Your task to perform on an android device: turn on priority inbox in the gmail app Image 0: 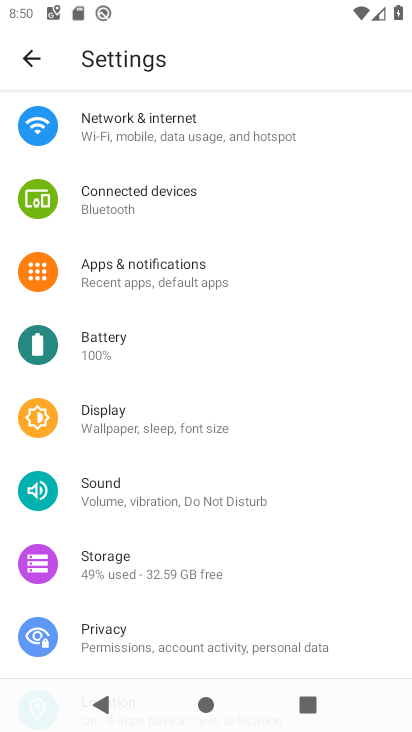
Step 0: press home button
Your task to perform on an android device: turn on priority inbox in the gmail app Image 1: 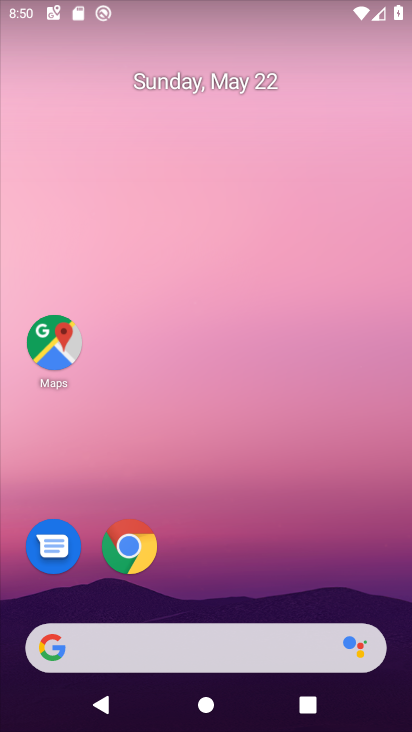
Step 1: drag from (356, 607) to (345, 170)
Your task to perform on an android device: turn on priority inbox in the gmail app Image 2: 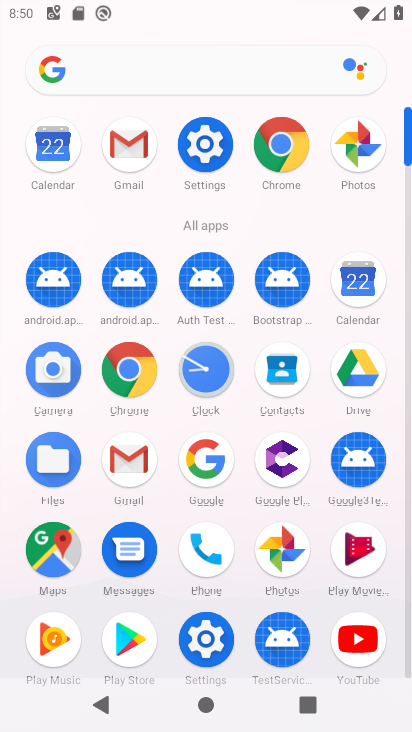
Step 2: click (136, 474)
Your task to perform on an android device: turn on priority inbox in the gmail app Image 3: 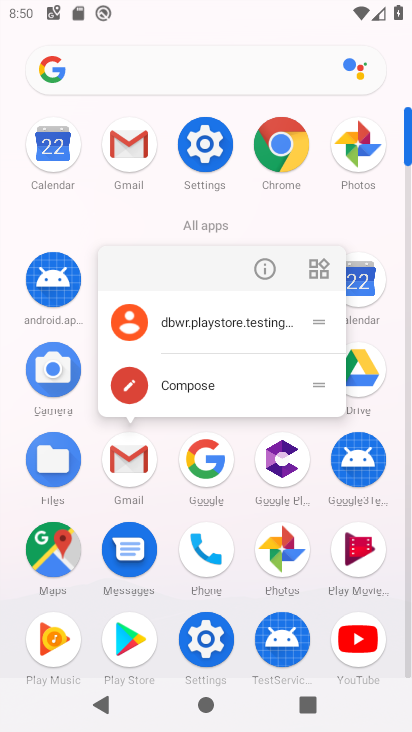
Step 3: click (136, 474)
Your task to perform on an android device: turn on priority inbox in the gmail app Image 4: 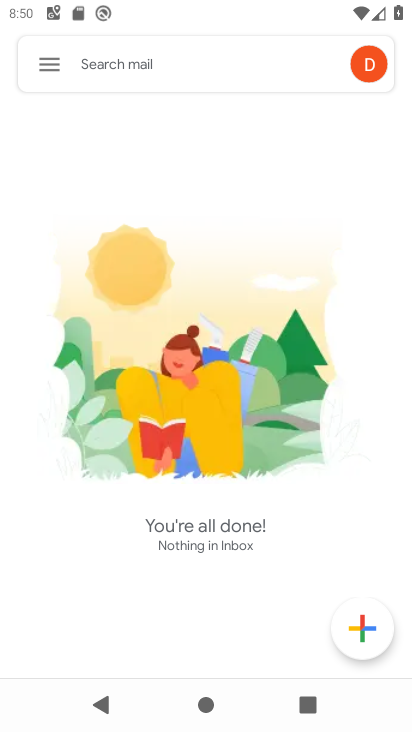
Step 4: click (53, 78)
Your task to perform on an android device: turn on priority inbox in the gmail app Image 5: 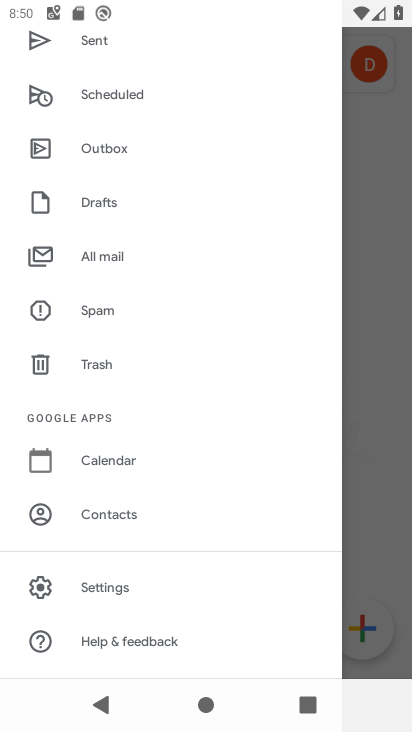
Step 5: drag from (280, 562) to (274, 384)
Your task to perform on an android device: turn on priority inbox in the gmail app Image 6: 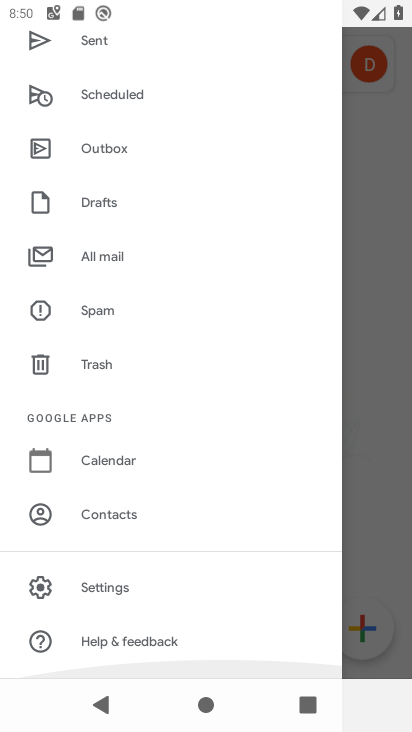
Step 6: drag from (272, 283) to (271, 412)
Your task to perform on an android device: turn on priority inbox in the gmail app Image 7: 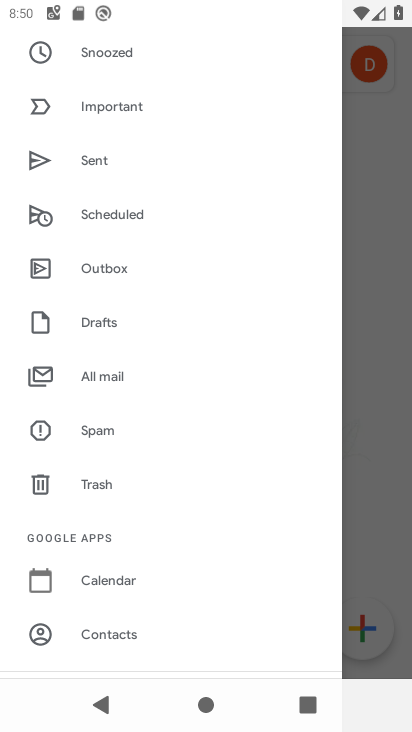
Step 7: drag from (287, 273) to (286, 386)
Your task to perform on an android device: turn on priority inbox in the gmail app Image 8: 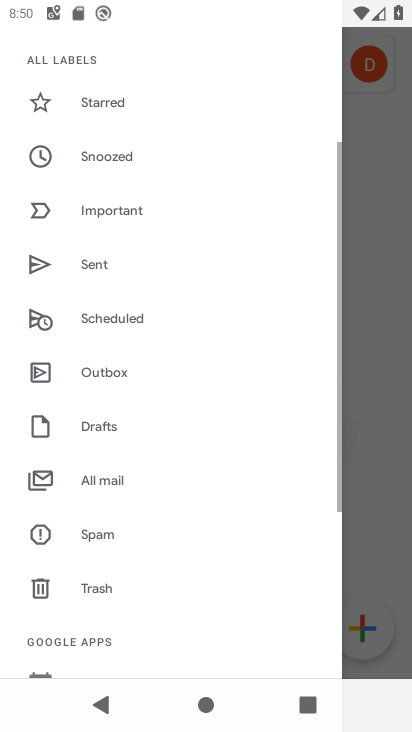
Step 8: drag from (279, 234) to (286, 367)
Your task to perform on an android device: turn on priority inbox in the gmail app Image 9: 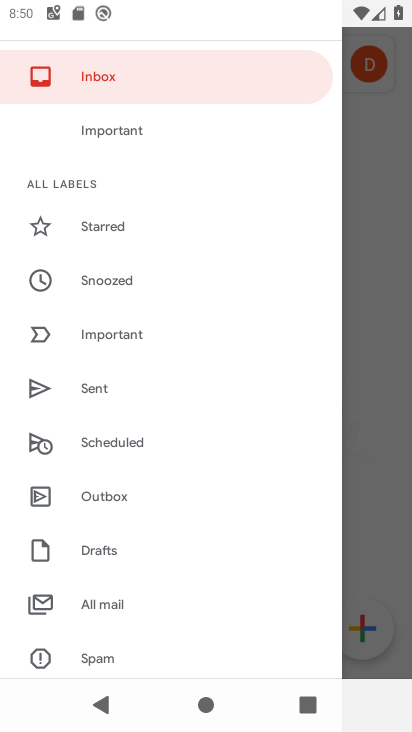
Step 9: drag from (286, 255) to (285, 409)
Your task to perform on an android device: turn on priority inbox in the gmail app Image 10: 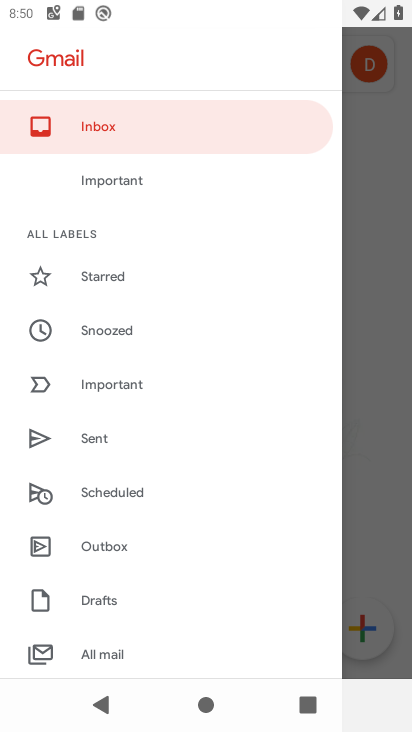
Step 10: drag from (272, 549) to (270, 429)
Your task to perform on an android device: turn on priority inbox in the gmail app Image 11: 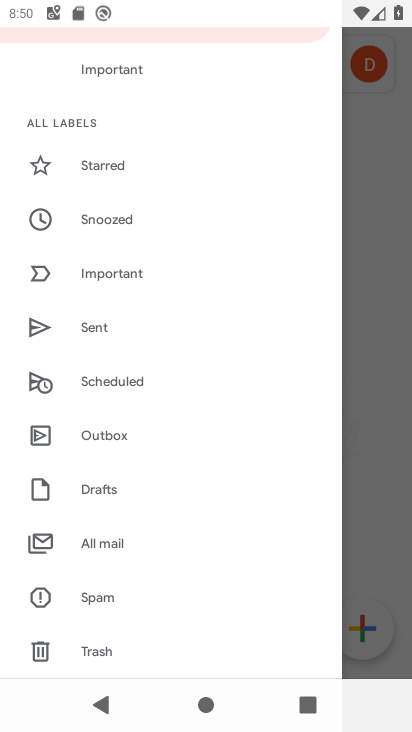
Step 11: drag from (267, 544) to (267, 439)
Your task to perform on an android device: turn on priority inbox in the gmail app Image 12: 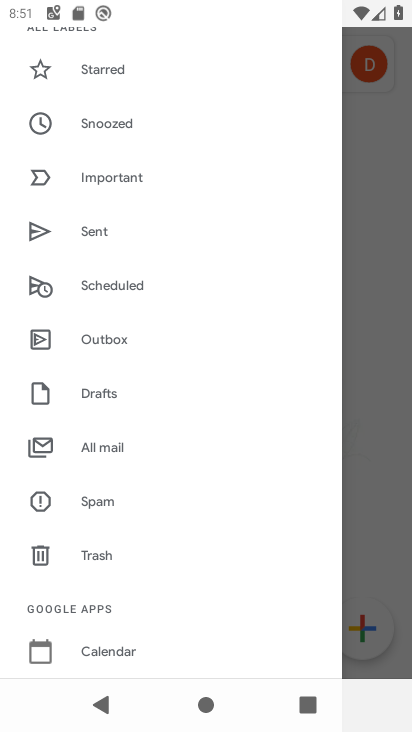
Step 12: drag from (263, 531) to (281, 410)
Your task to perform on an android device: turn on priority inbox in the gmail app Image 13: 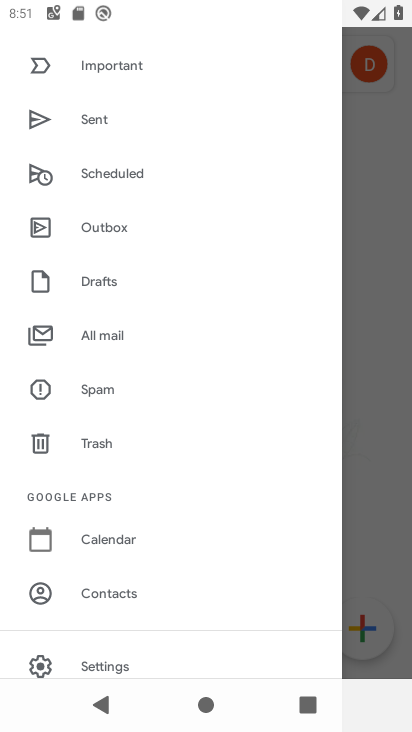
Step 13: drag from (273, 596) to (277, 429)
Your task to perform on an android device: turn on priority inbox in the gmail app Image 14: 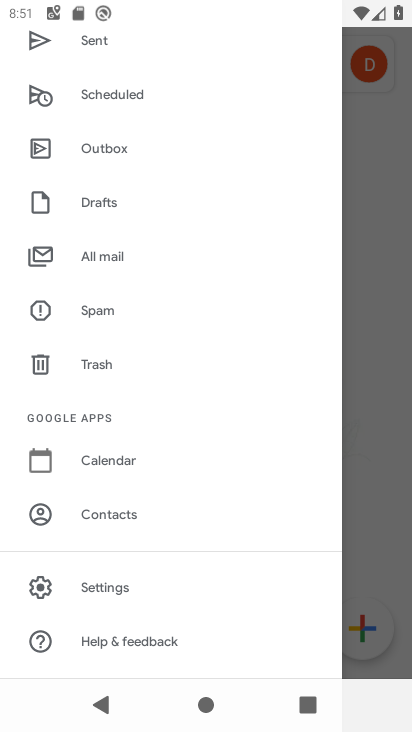
Step 14: click (152, 595)
Your task to perform on an android device: turn on priority inbox in the gmail app Image 15: 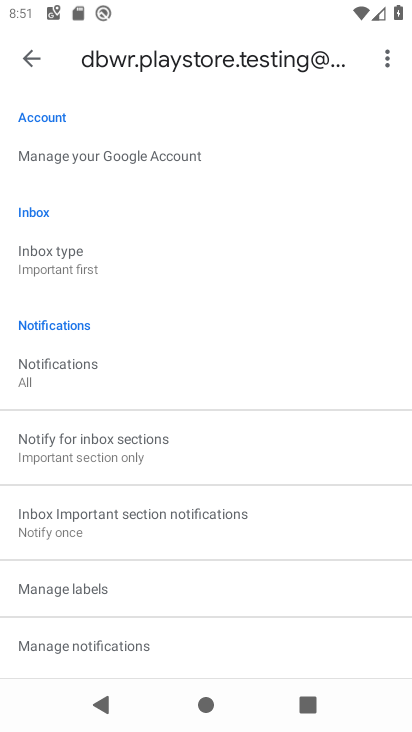
Step 15: drag from (245, 576) to (249, 483)
Your task to perform on an android device: turn on priority inbox in the gmail app Image 16: 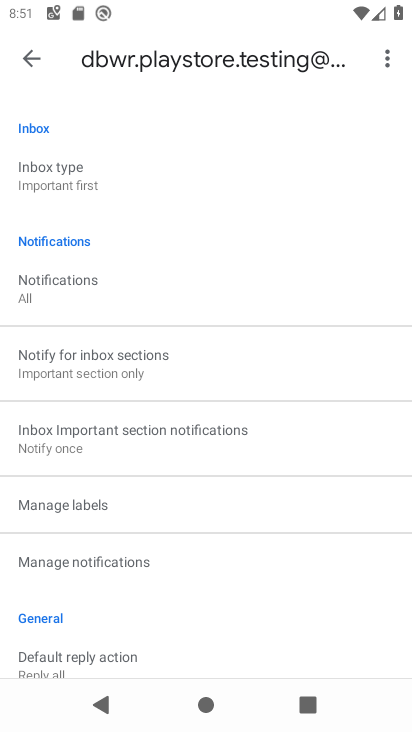
Step 16: drag from (251, 567) to (254, 488)
Your task to perform on an android device: turn on priority inbox in the gmail app Image 17: 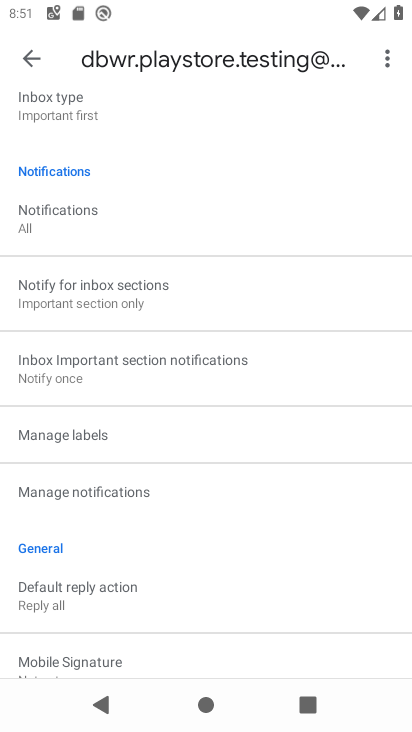
Step 17: drag from (261, 588) to (277, 493)
Your task to perform on an android device: turn on priority inbox in the gmail app Image 18: 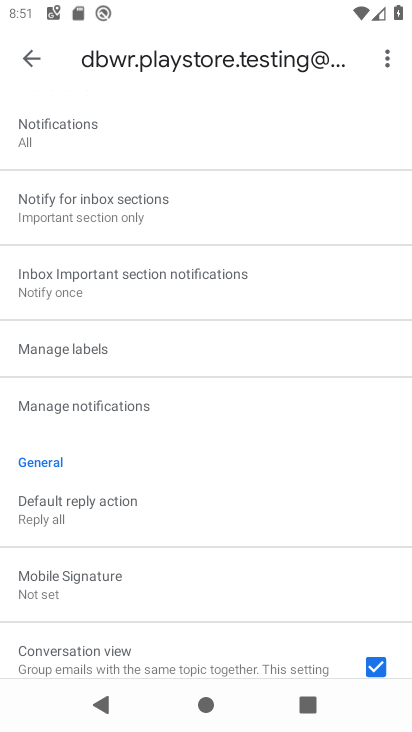
Step 18: drag from (293, 596) to (291, 503)
Your task to perform on an android device: turn on priority inbox in the gmail app Image 19: 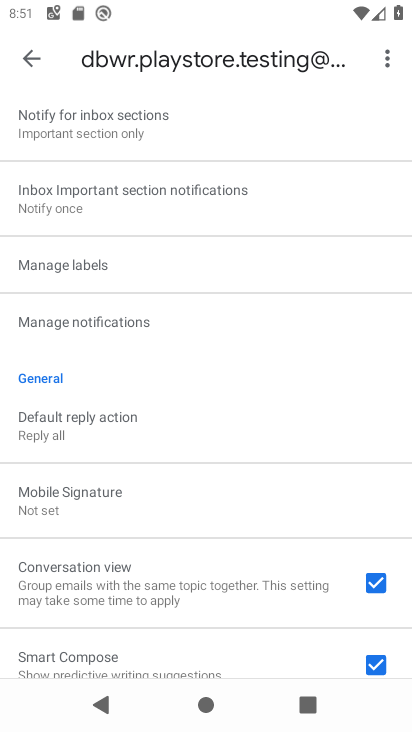
Step 19: drag from (288, 597) to (285, 498)
Your task to perform on an android device: turn on priority inbox in the gmail app Image 20: 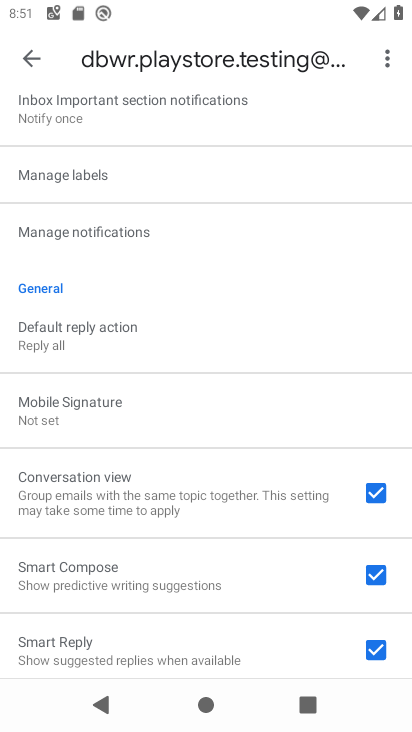
Step 20: drag from (274, 626) to (281, 546)
Your task to perform on an android device: turn on priority inbox in the gmail app Image 21: 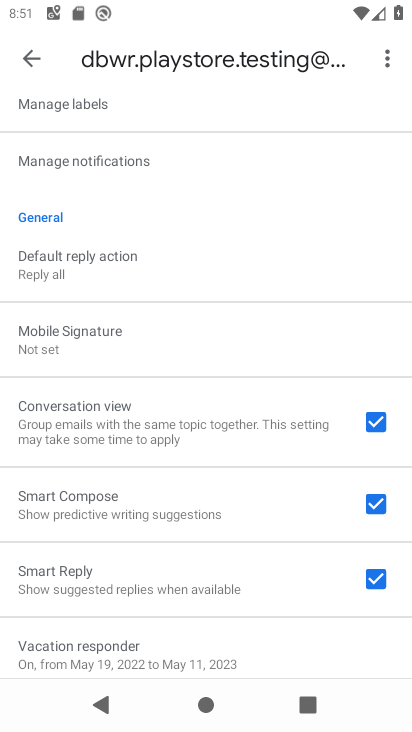
Step 21: drag from (287, 625) to (283, 554)
Your task to perform on an android device: turn on priority inbox in the gmail app Image 22: 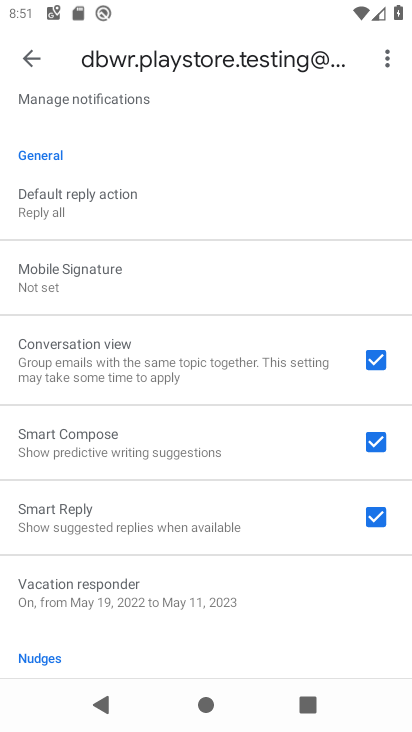
Step 22: drag from (292, 629) to (296, 561)
Your task to perform on an android device: turn on priority inbox in the gmail app Image 23: 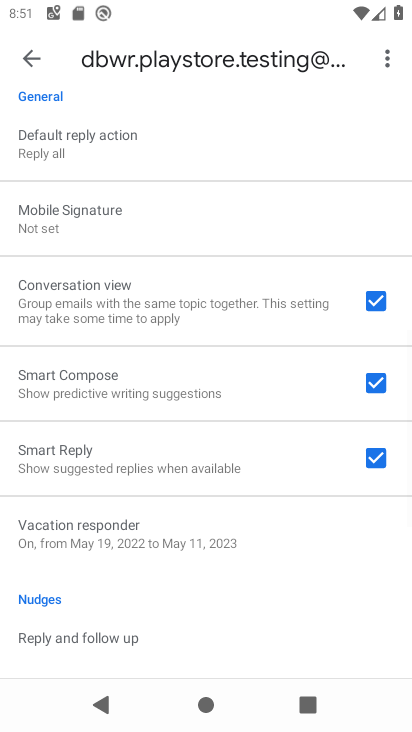
Step 23: drag from (280, 647) to (287, 590)
Your task to perform on an android device: turn on priority inbox in the gmail app Image 24: 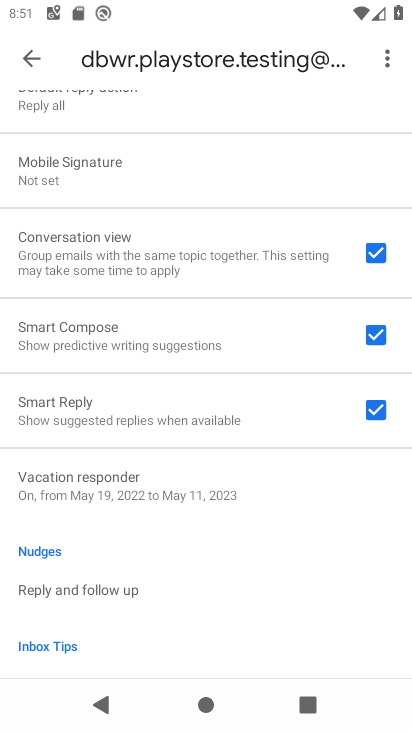
Step 24: drag from (280, 664) to (284, 600)
Your task to perform on an android device: turn on priority inbox in the gmail app Image 25: 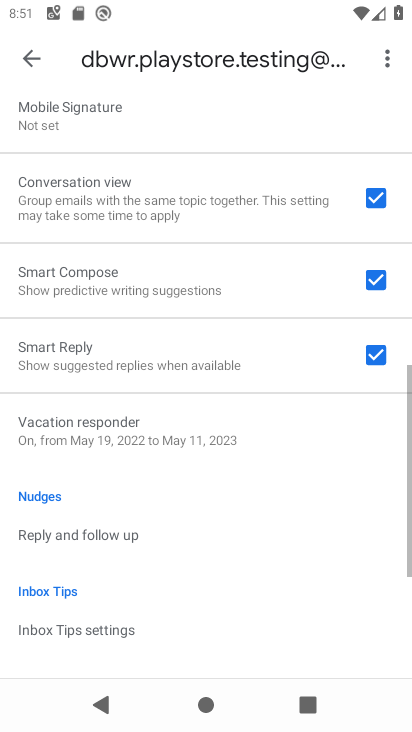
Step 25: drag from (277, 654) to (280, 562)
Your task to perform on an android device: turn on priority inbox in the gmail app Image 26: 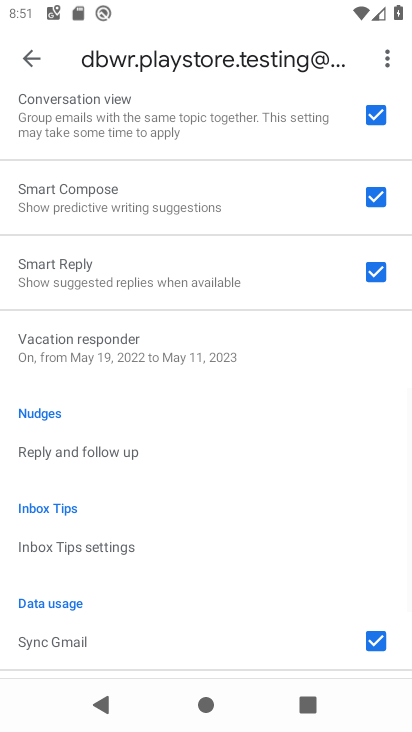
Step 26: drag from (274, 635) to (277, 512)
Your task to perform on an android device: turn on priority inbox in the gmail app Image 27: 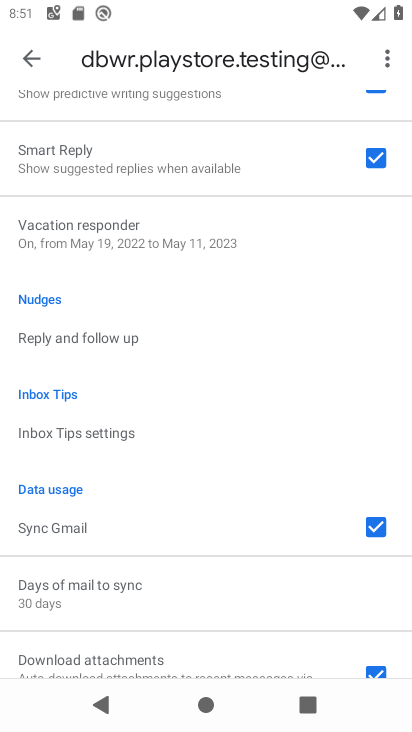
Step 27: drag from (273, 568) to (275, 472)
Your task to perform on an android device: turn on priority inbox in the gmail app Image 28: 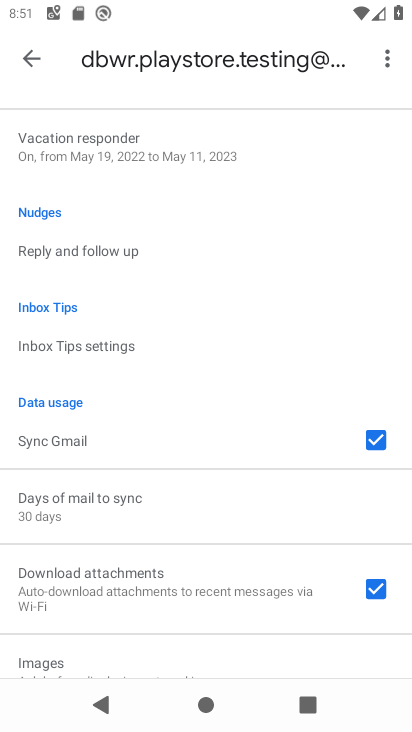
Step 28: drag from (282, 593) to (281, 460)
Your task to perform on an android device: turn on priority inbox in the gmail app Image 29: 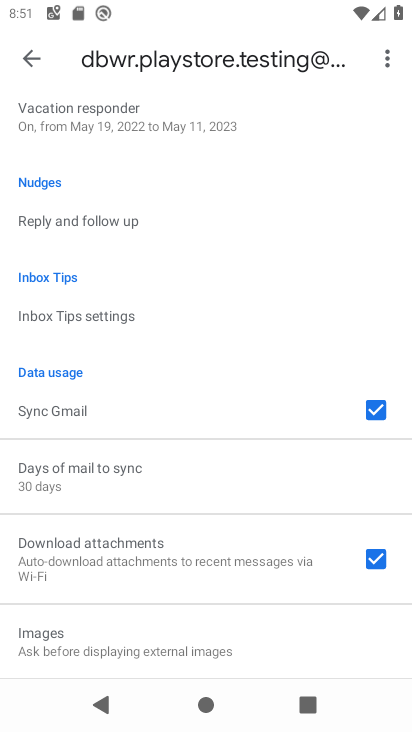
Step 29: drag from (274, 405) to (278, 507)
Your task to perform on an android device: turn on priority inbox in the gmail app Image 30: 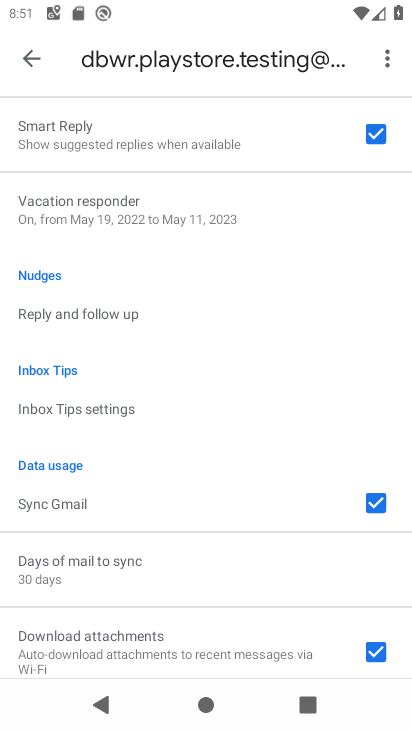
Step 30: drag from (273, 436) to (278, 541)
Your task to perform on an android device: turn on priority inbox in the gmail app Image 31: 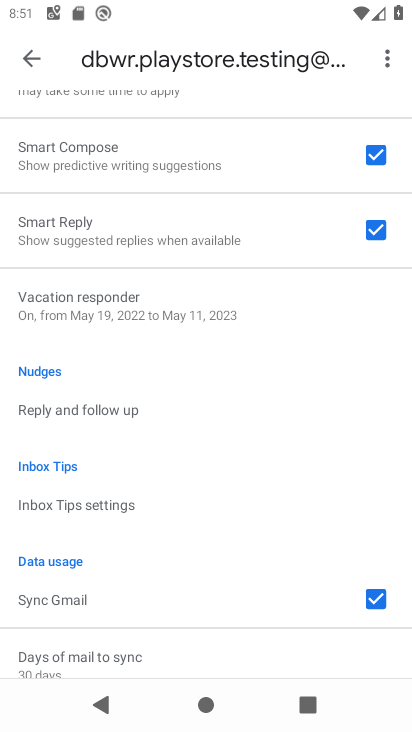
Step 31: drag from (282, 395) to (286, 514)
Your task to perform on an android device: turn on priority inbox in the gmail app Image 32: 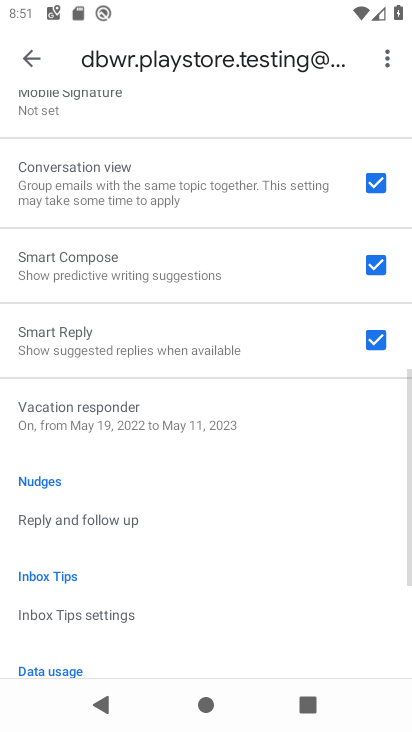
Step 32: drag from (280, 376) to (284, 489)
Your task to perform on an android device: turn on priority inbox in the gmail app Image 33: 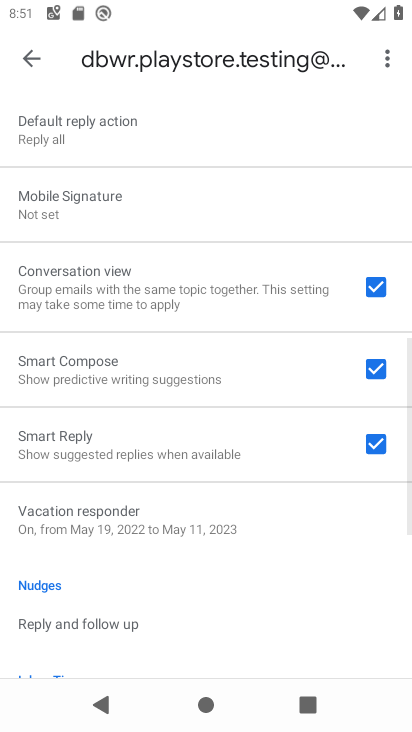
Step 33: drag from (277, 338) to (283, 442)
Your task to perform on an android device: turn on priority inbox in the gmail app Image 34: 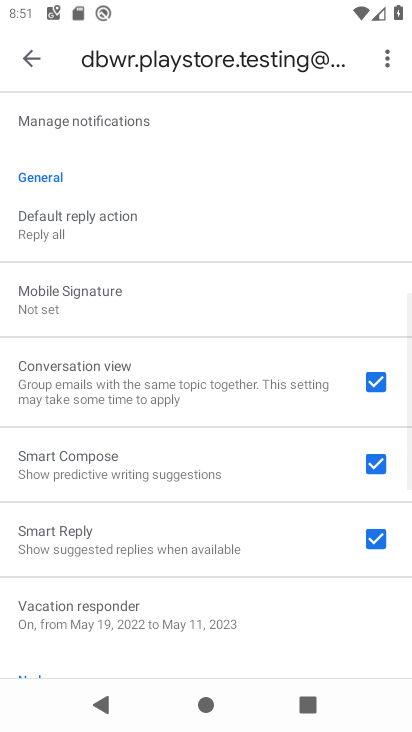
Step 34: drag from (278, 317) to (286, 434)
Your task to perform on an android device: turn on priority inbox in the gmail app Image 35: 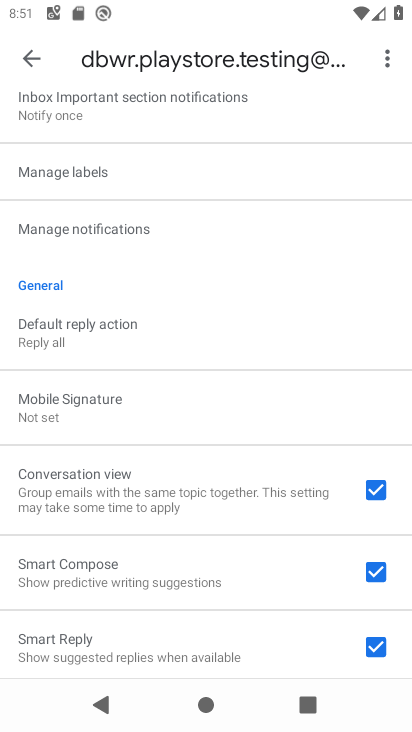
Step 35: drag from (274, 299) to (287, 404)
Your task to perform on an android device: turn on priority inbox in the gmail app Image 36: 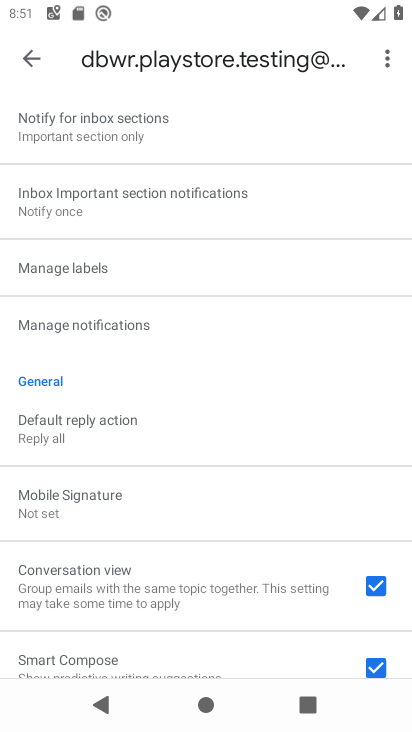
Step 36: drag from (280, 306) to (280, 403)
Your task to perform on an android device: turn on priority inbox in the gmail app Image 37: 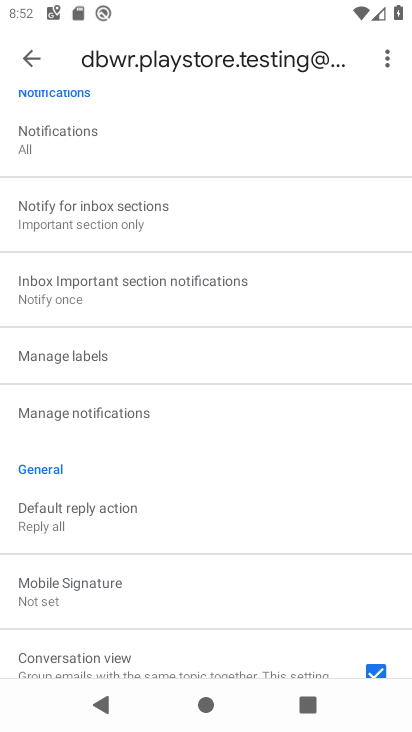
Step 37: drag from (265, 262) to (263, 404)
Your task to perform on an android device: turn on priority inbox in the gmail app Image 38: 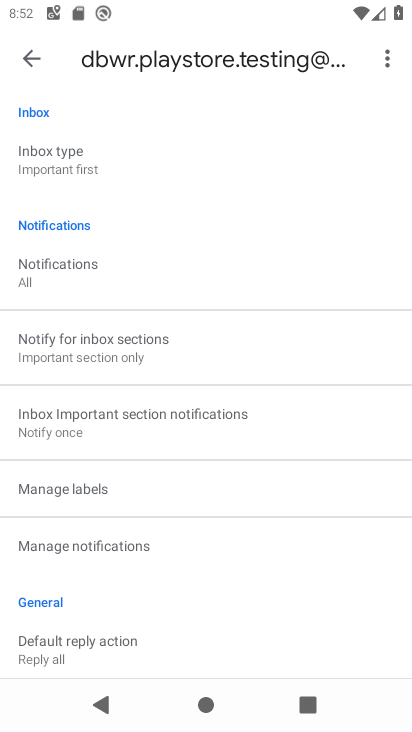
Step 38: drag from (250, 258) to (258, 363)
Your task to perform on an android device: turn on priority inbox in the gmail app Image 39: 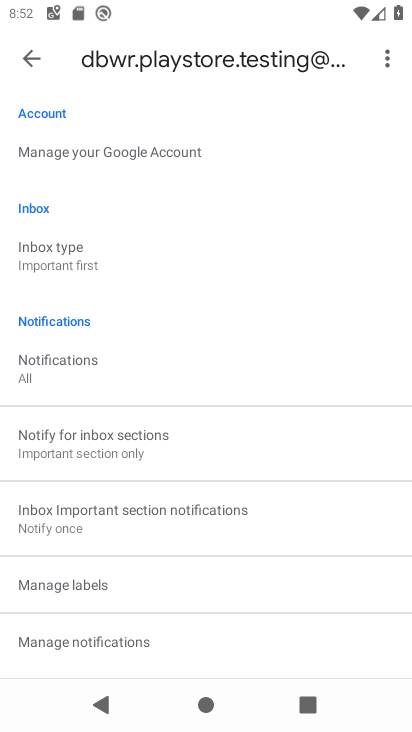
Step 39: click (96, 258)
Your task to perform on an android device: turn on priority inbox in the gmail app Image 40: 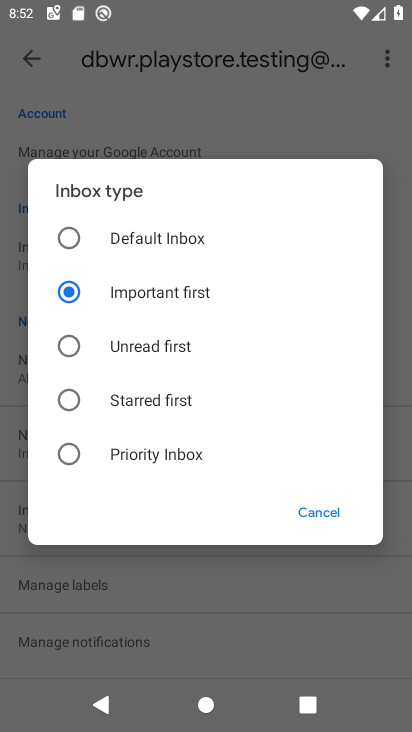
Step 40: click (133, 458)
Your task to perform on an android device: turn on priority inbox in the gmail app Image 41: 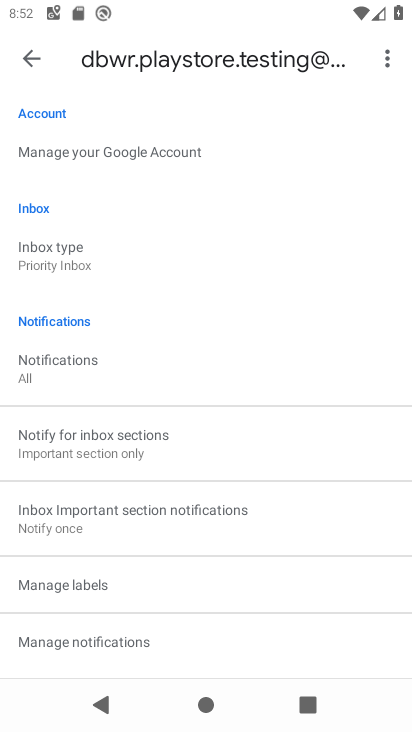
Step 41: task complete